Your task to perform on an android device: Clear the cart on amazon.com. Add razer blade to the cart on amazon.com, then select checkout. Image 0: 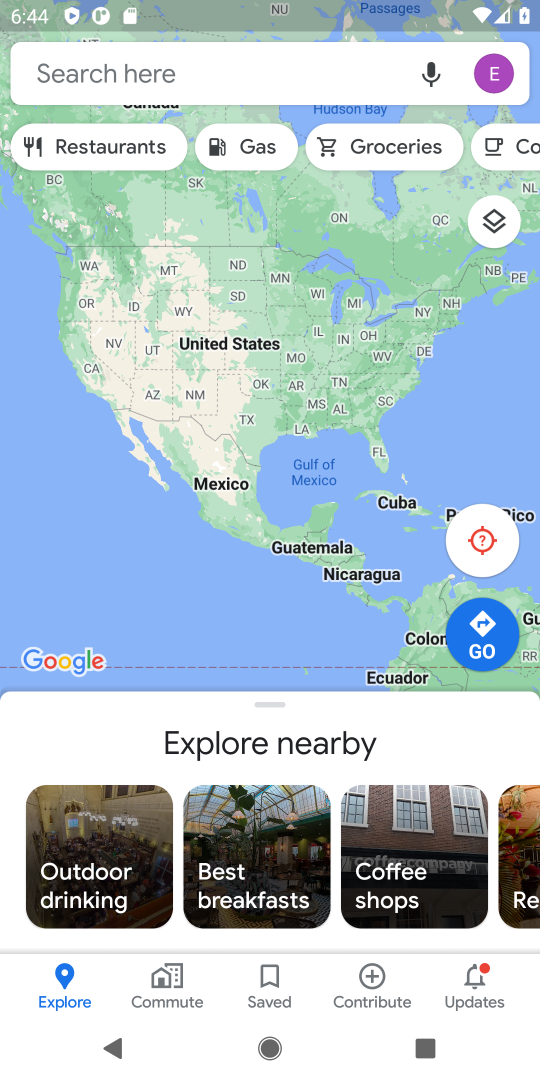
Step 0: press home button
Your task to perform on an android device: Clear the cart on amazon.com. Add razer blade to the cart on amazon.com, then select checkout. Image 1: 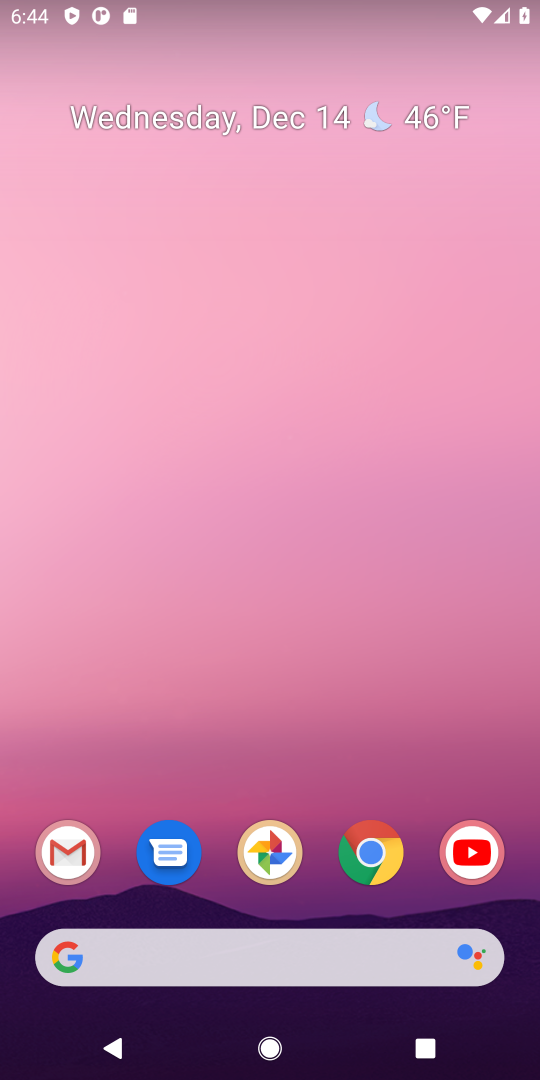
Step 1: click (377, 856)
Your task to perform on an android device: Clear the cart on amazon.com. Add razer blade to the cart on amazon.com, then select checkout. Image 2: 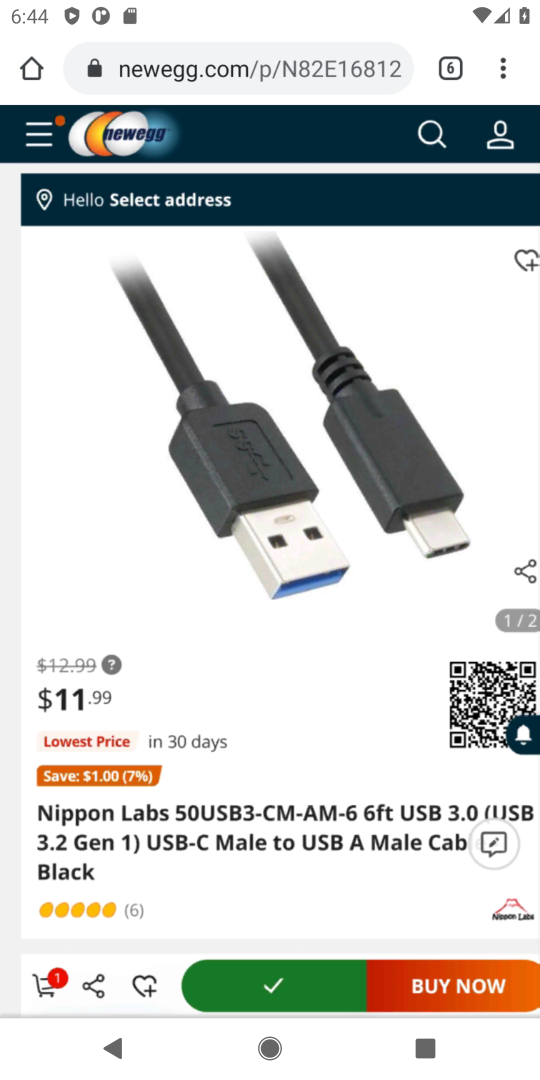
Step 2: click (446, 70)
Your task to perform on an android device: Clear the cart on amazon.com. Add razer blade to the cart on amazon.com, then select checkout. Image 3: 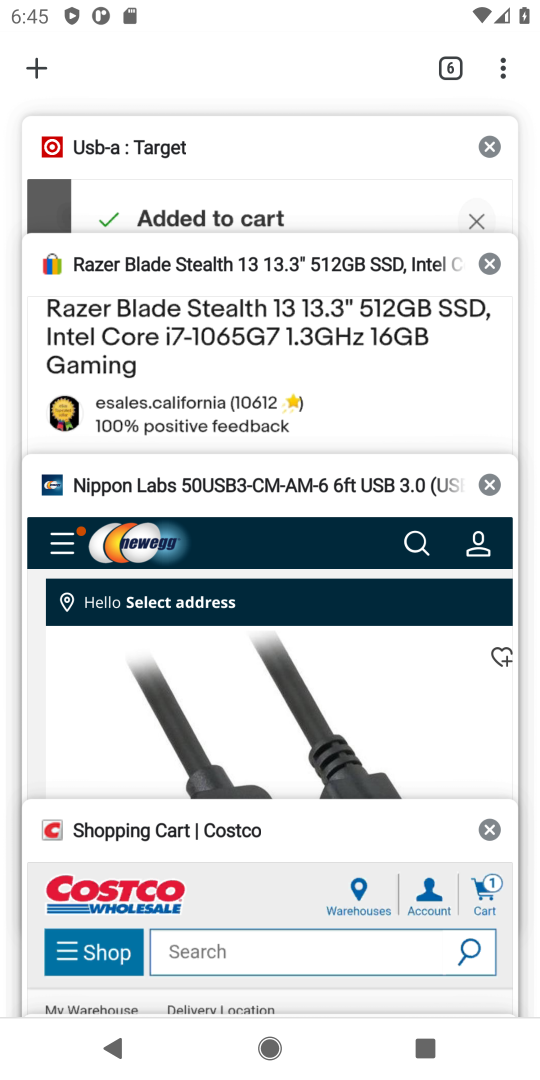
Step 3: drag from (271, 945) to (260, 617)
Your task to perform on an android device: Clear the cart on amazon.com. Add razer blade to the cart on amazon.com, then select checkout. Image 4: 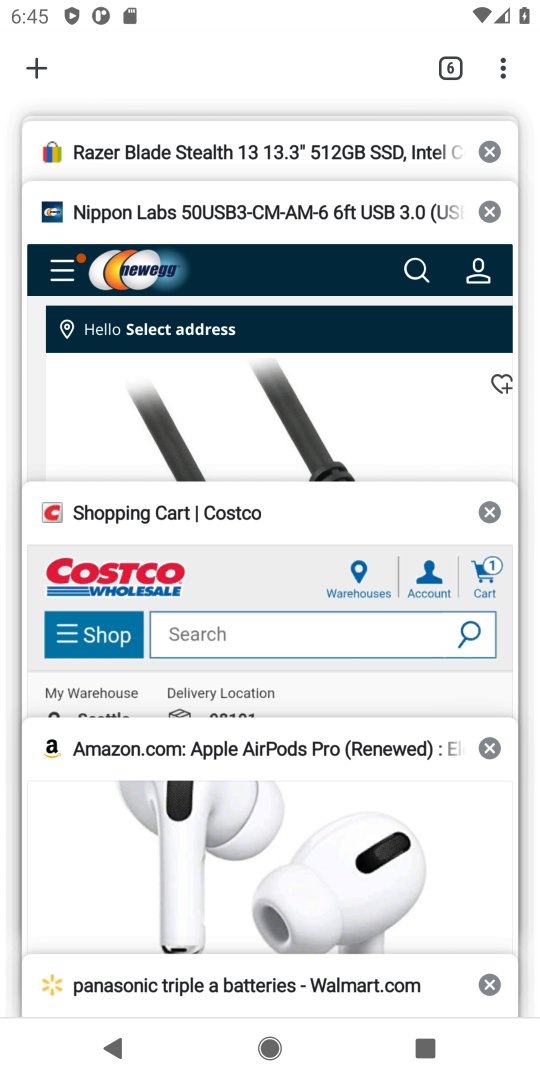
Step 4: click (248, 814)
Your task to perform on an android device: Clear the cart on amazon.com. Add razer blade to the cart on amazon.com, then select checkout. Image 5: 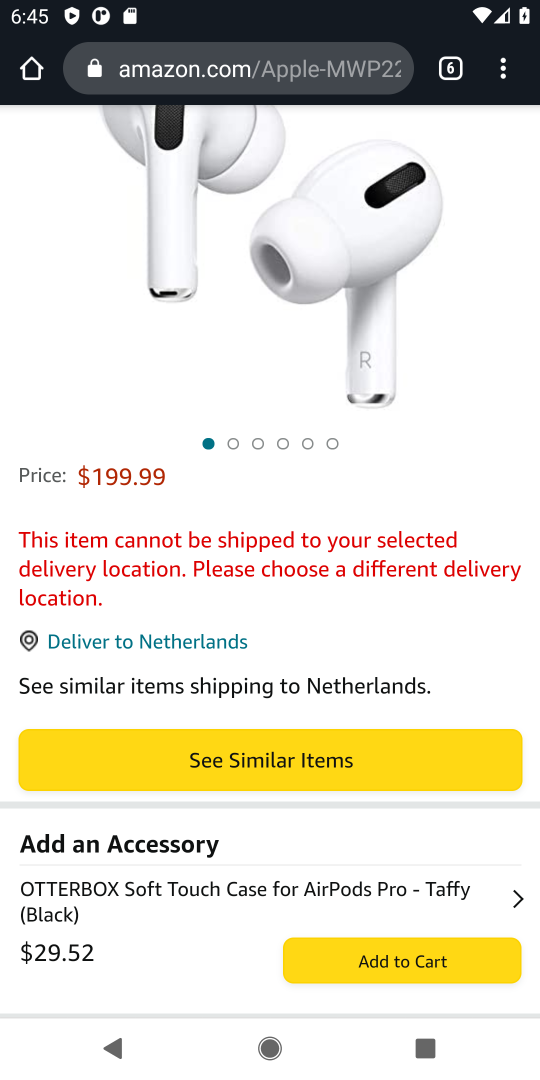
Step 5: drag from (406, 323) to (472, 911)
Your task to perform on an android device: Clear the cart on amazon.com. Add razer blade to the cart on amazon.com, then select checkout. Image 6: 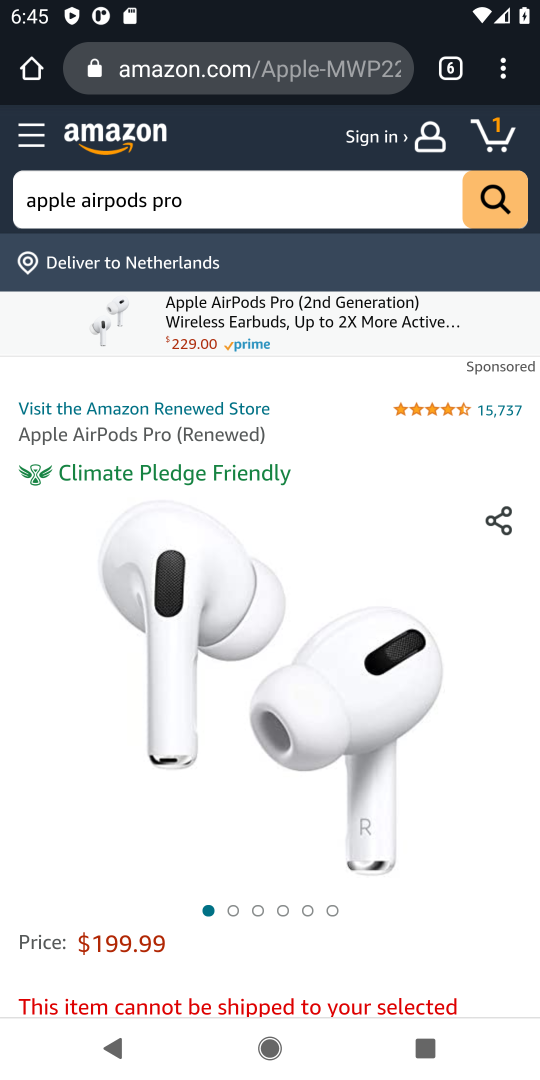
Step 6: click (502, 119)
Your task to perform on an android device: Clear the cart on amazon.com. Add razer blade to the cart on amazon.com, then select checkout. Image 7: 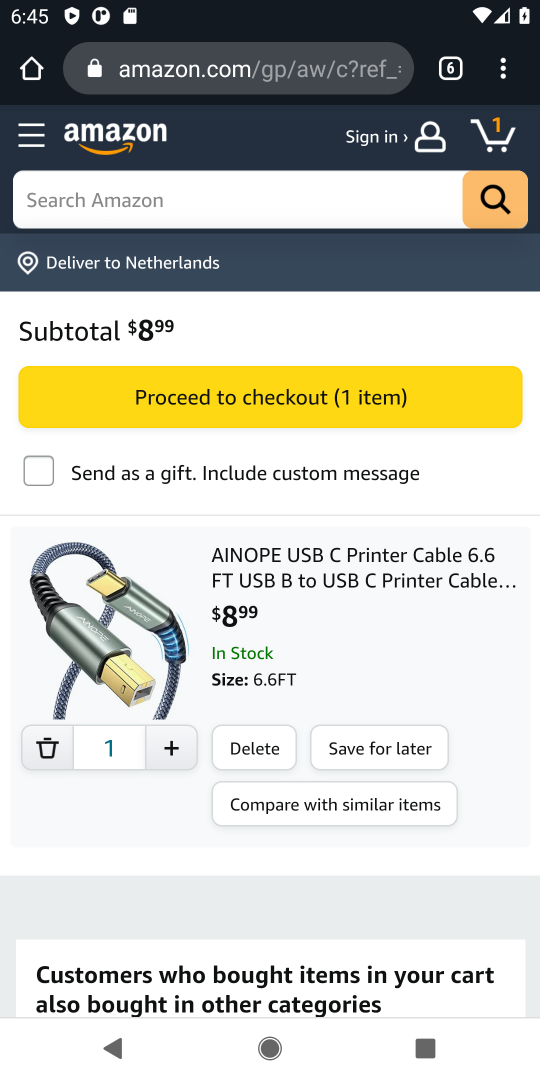
Step 7: click (246, 745)
Your task to perform on an android device: Clear the cart on amazon.com. Add razer blade to the cart on amazon.com, then select checkout. Image 8: 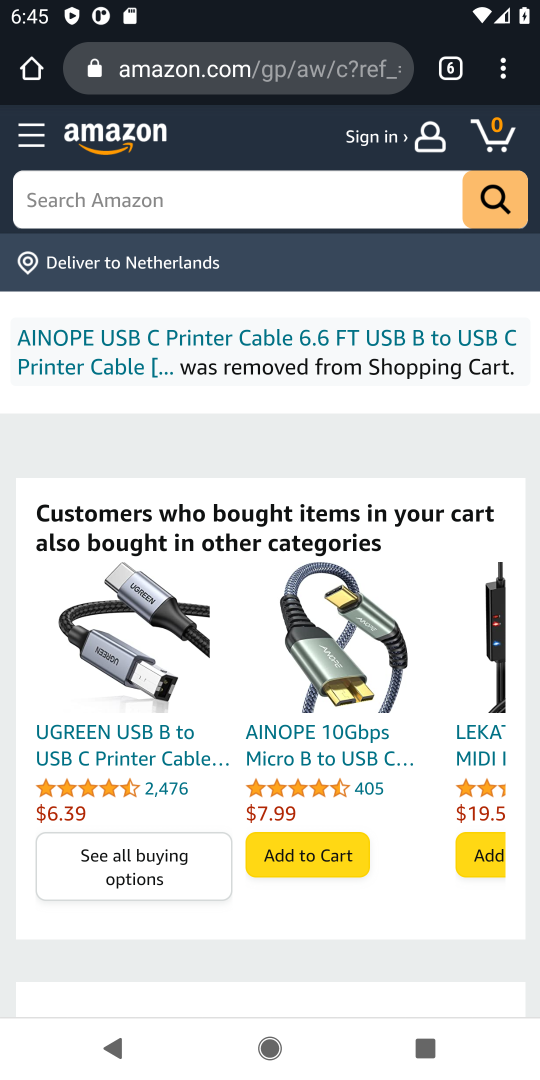
Step 8: click (131, 185)
Your task to perform on an android device: Clear the cart on amazon.com. Add razer blade to the cart on amazon.com, then select checkout. Image 9: 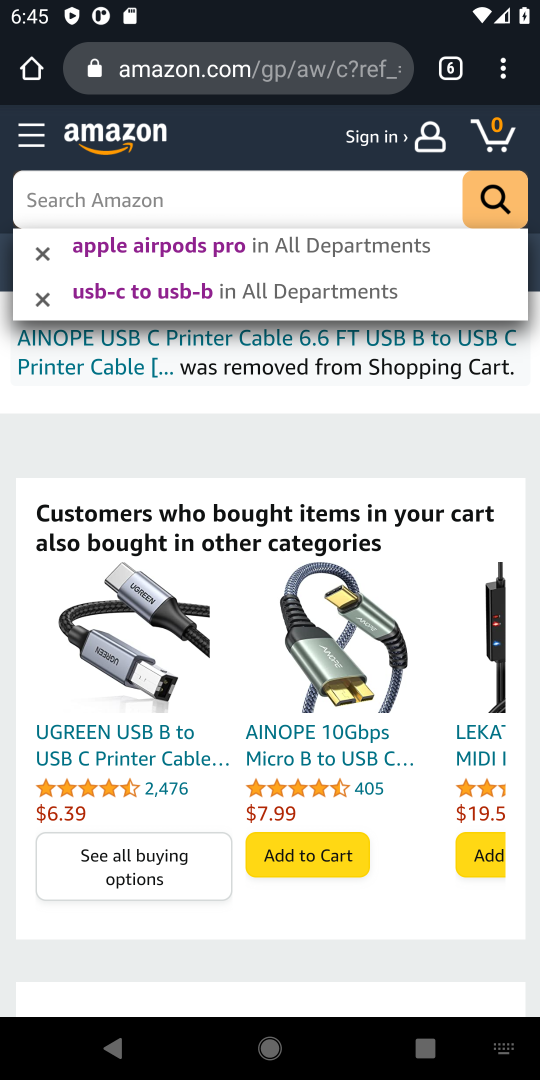
Step 9: type "razer blade"
Your task to perform on an android device: Clear the cart on amazon.com. Add razer blade to the cart on amazon.com, then select checkout. Image 10: 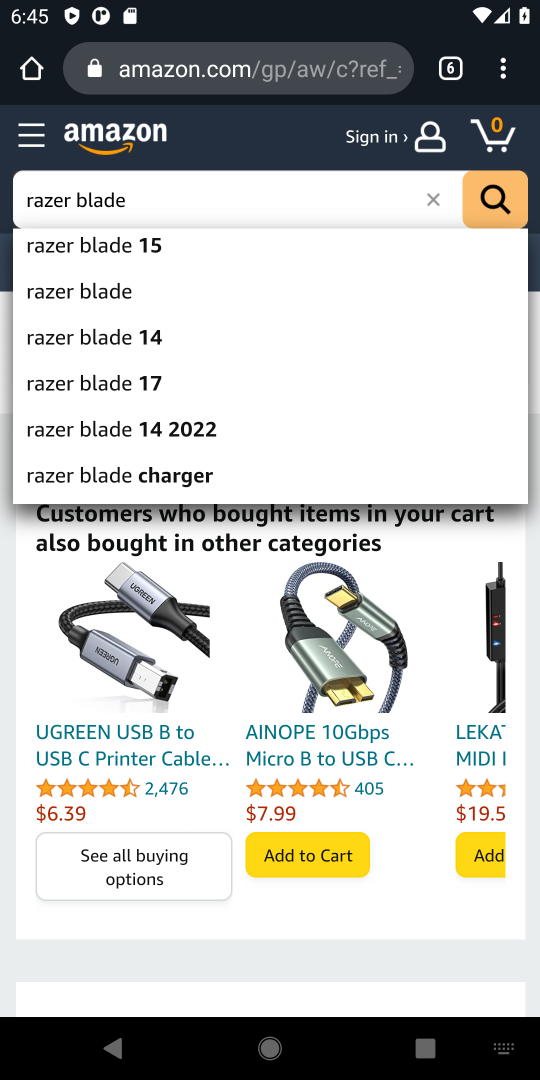
Step 10: click (106, 290)
Your task to perform on an android device: Clear the cart on amazon.com. Add razer blade to the cart on amazon.com, then select checkout. Image 11: 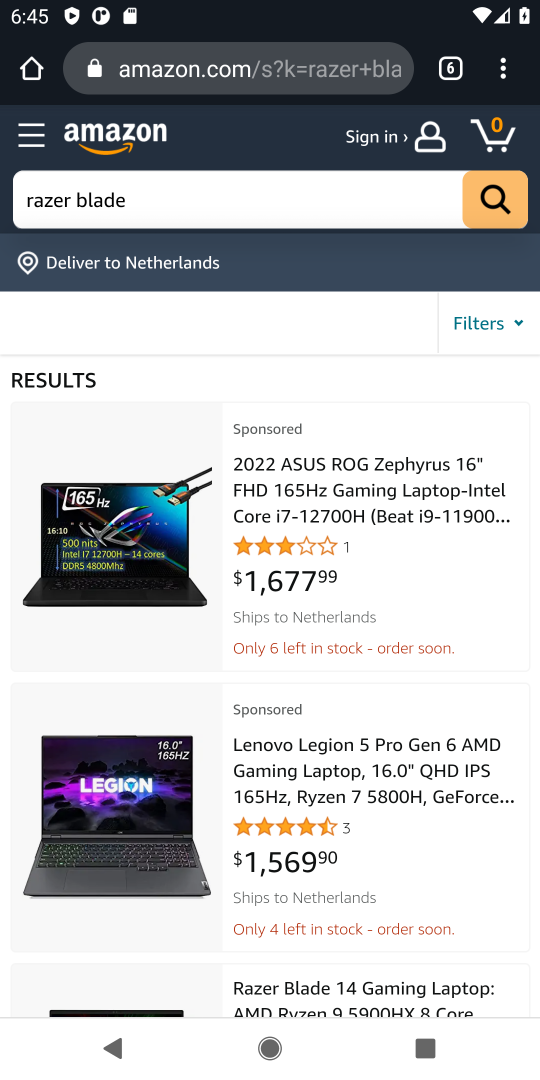
Step 11: click (352, 1002)
Your task to perform on an android device: Clear the cart on amazon.com. Add razer blade to the cart on amazon.com, then select checkout. Image 12: 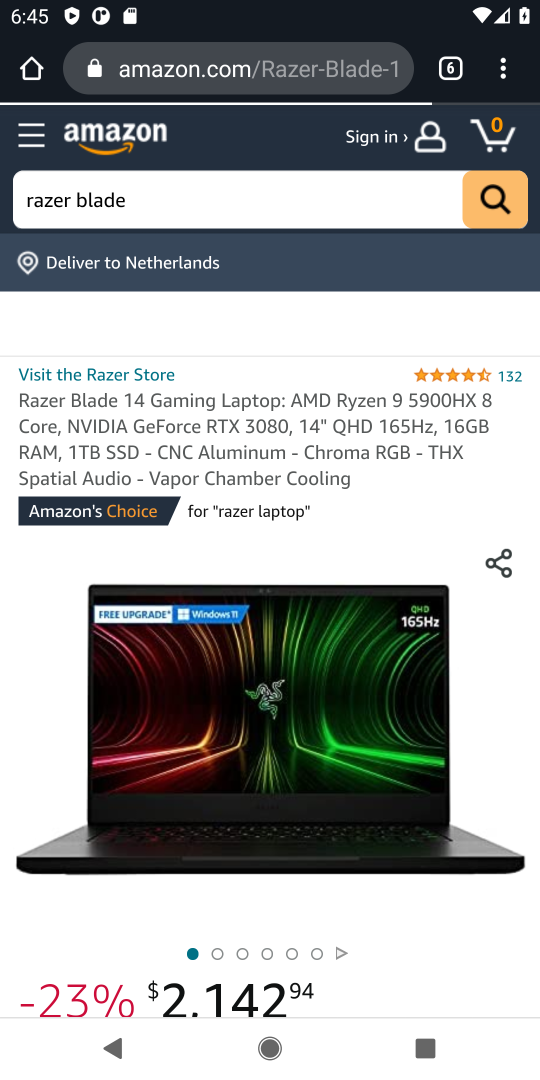
Step 12: drag from (324, 987) to (394, 512)
Your task to perform on an android device: Clear the cart on amazon.com. Add razer blade to the cart on amazon.com, then select checkout. Image 13: 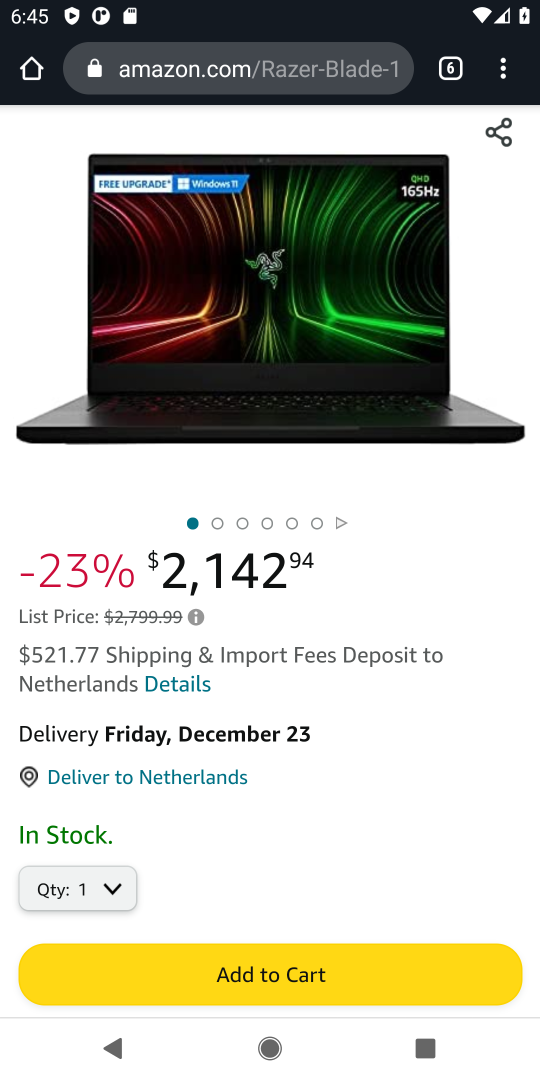
Step 13: click (315, 966)
Your task to perform on an android device: Clear the cart on amazon.com. Add razer blade to the cart on amazon.com, then select checkout. Image 14: 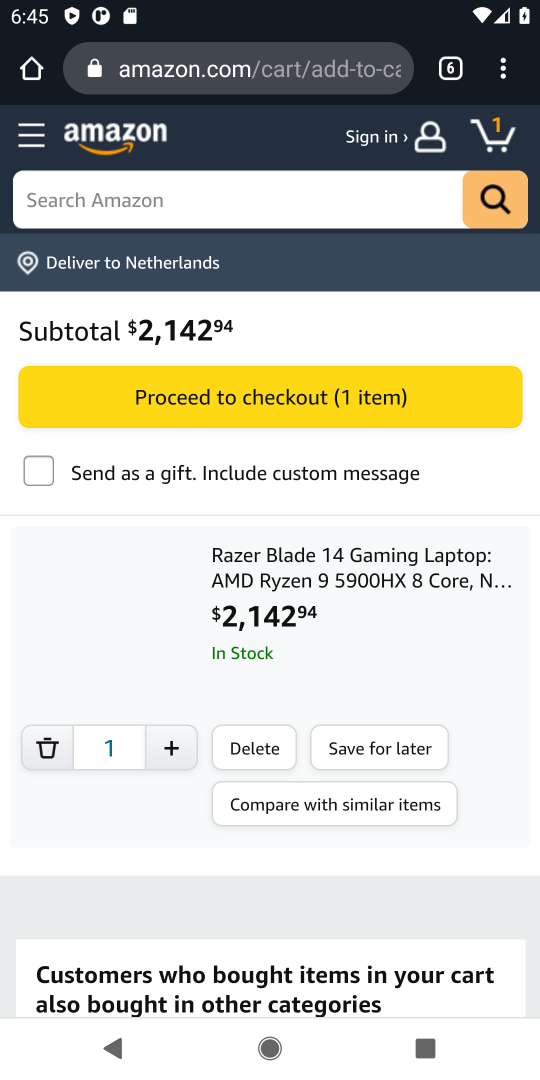
Step 14: task complete